Your task to perform on an android device: Show me the alarms in the clock app Image 0: 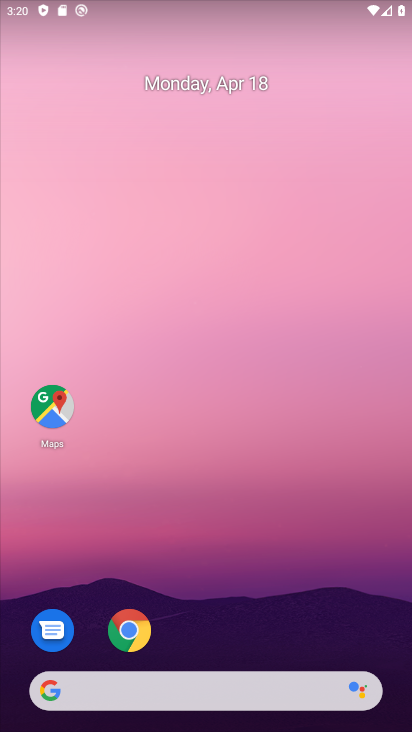
Step 0: drag from (171, 668) to (294, 119)
Your task to perform on an android device: Show me the alarms in the clock app Image 1: 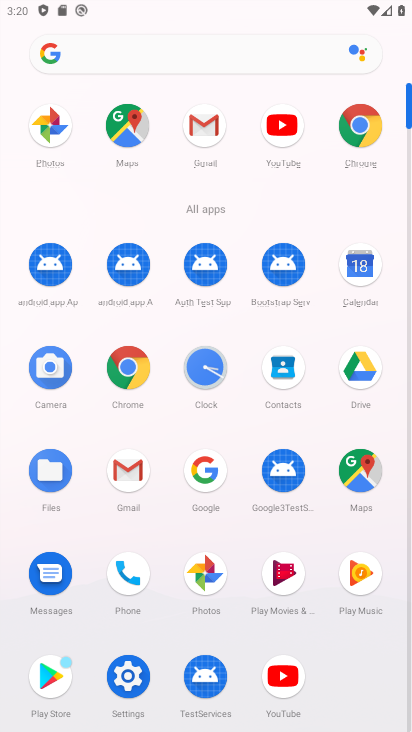
Step 1: click (202, 360)
Your task to perform on an android device: Show me the alarms in the clock app Image 2: 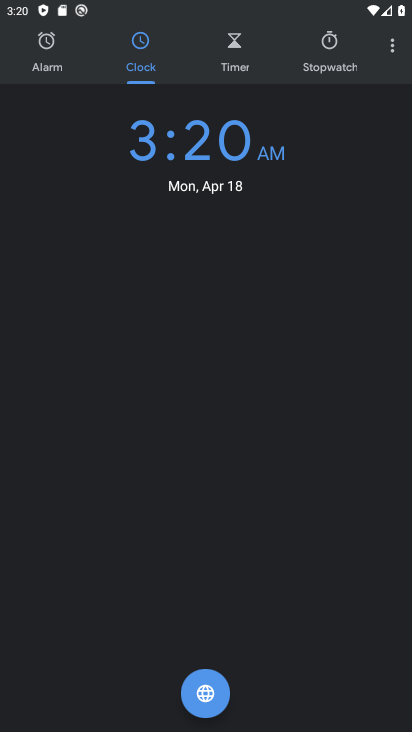
Step 2: click (44, 46)
Your task to perform on an android device: Show me the alarms in the clock app Image 3: 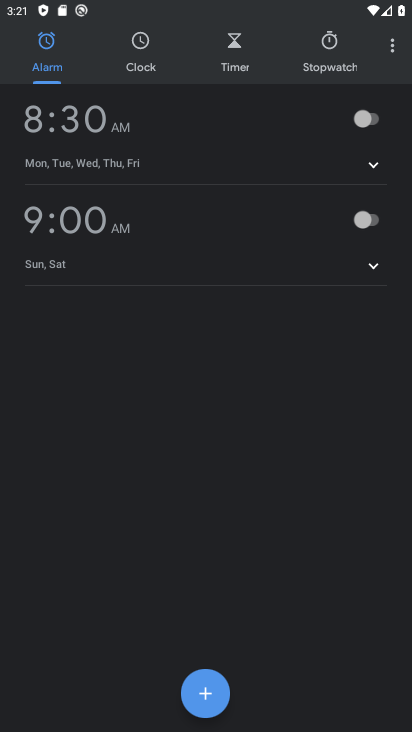
Step 3: task complete